Your task to perform on an android device: open app "Pinterest" (install if not already installed) and go to login screen Image 0: 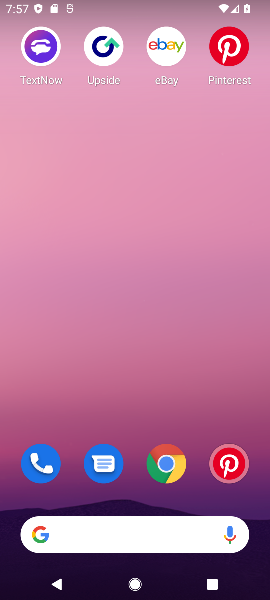
Step 0: drag from (138, 474) to (133, 123)
Your task to perform on an android device: open app "Pinterest" (install if not already installed) and go to login screen Image 1: 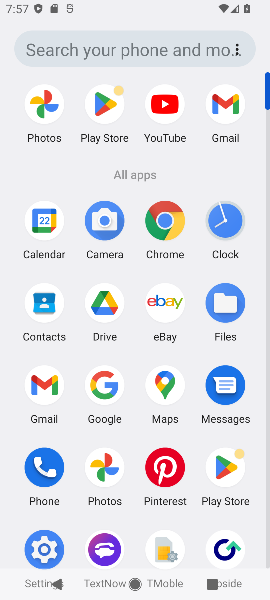
Step 1: click (111, 101)
Your task to perform on an android device: open app "Pinterest" (install if not already installed) and go to login screen Image 2: 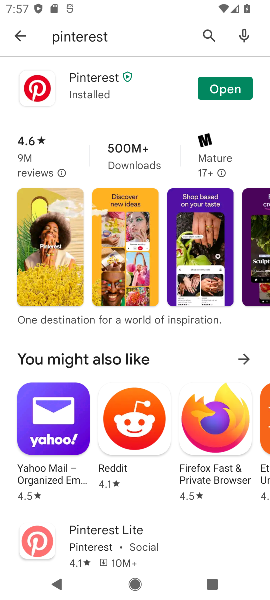
Step 2: click (16, 34)
Your task to perform on an android device: open app "Pinterest" (install if not already installed) and go to login screen Image 3: 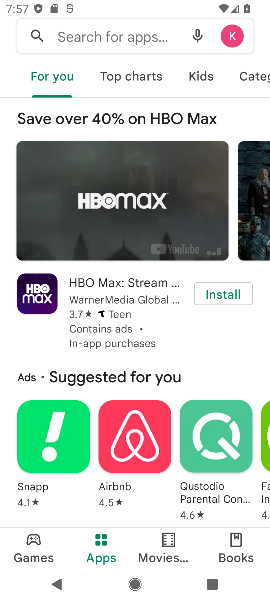
Step 3: click (130, 40)
Your task to perform on an android device: open app "Pinterest" (install if not already installed) and go to login screen Image 4: 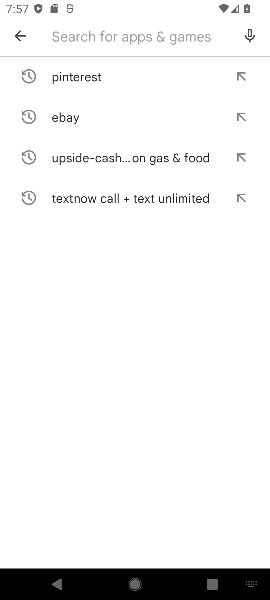
Step 4: type "Pinterest"
Your task to perform on an android device: open app "Pinterest" (install if not already installed) and go to login screen Image 5: 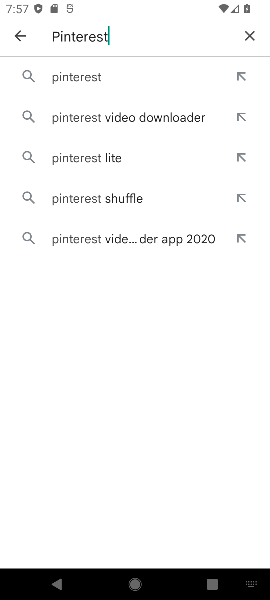
Step 5: click (86, 73)
Your task to perform on an android device: open app "Pinterest" (install if not already installed) and go to login screen Image 6: 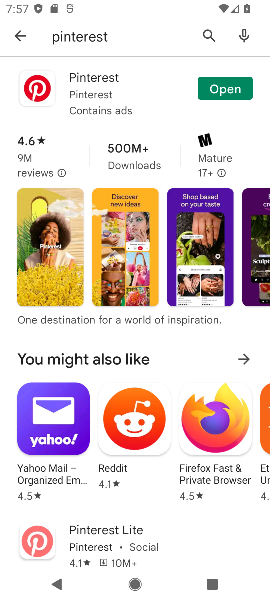
Step 6: click (223, 85)
Your task to perform on an android device: open app "Pinterest" (install if not already installed) and go to login screen Image 7: 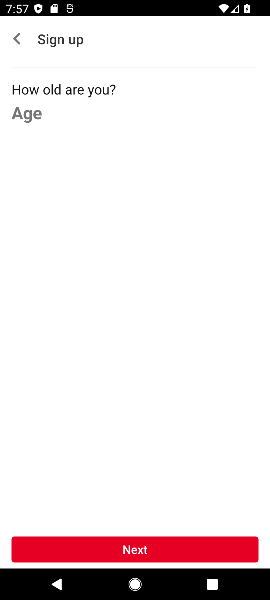
Step 7: click (18, 36)
Your task to perform on an android device: open app "Pinterest" (install if not already installed) and go to login screen Image 8: 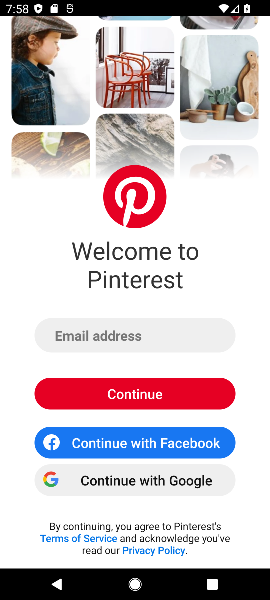
Step 8: task complete